Your task to perform on an android device: Go to Amazon Image 0: 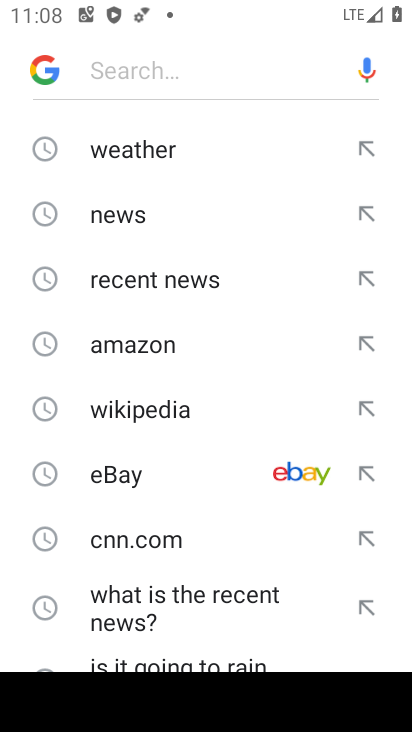
Step 0: press back button
Your task to perform on an android device: Go to Amazon Image 1: 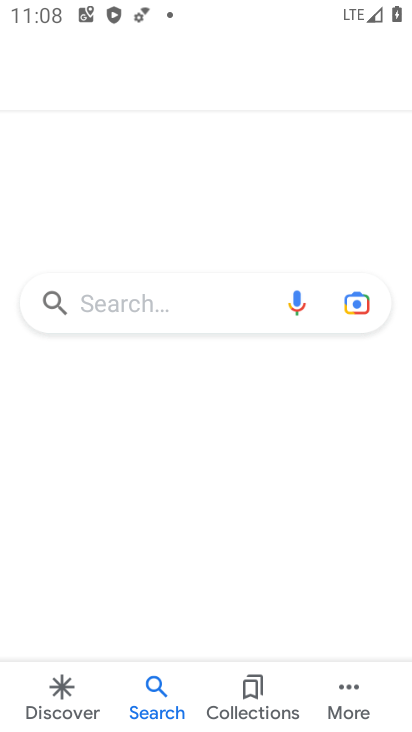
Step 1: press home button
Your task to perform on an android device: Go to Amazon Image 2: 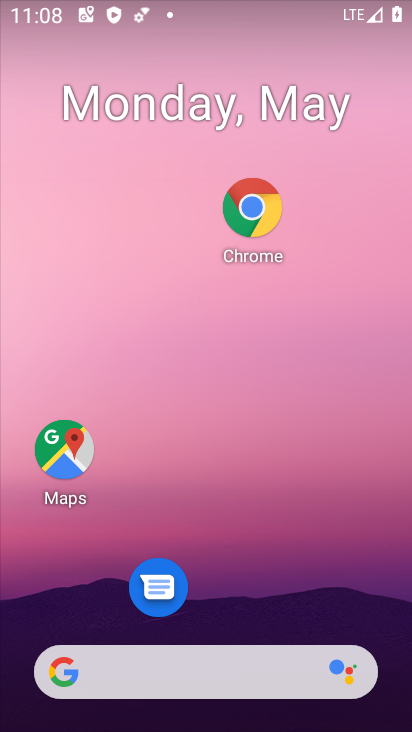
Step 2: drag from (324, 674) to (154, 84)
Your task to perform on an android device: Go to Amazon Image 3: 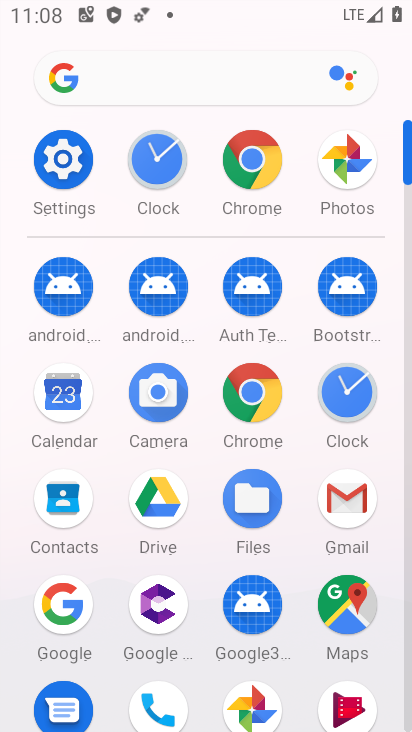
Step 3: click (244, 167)
Your task to perform on an android device: Go to Amazon Image 4: 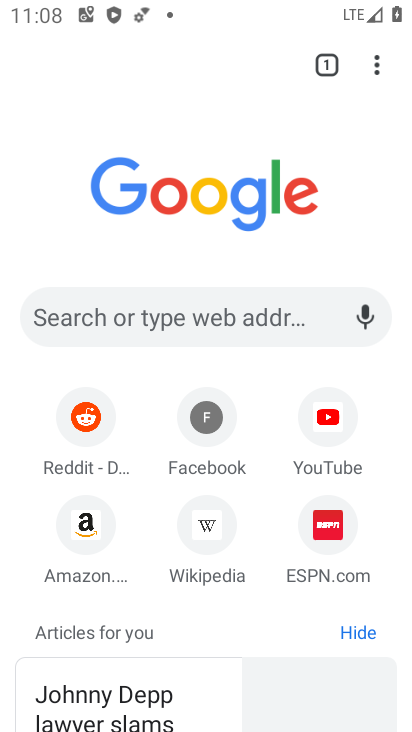
Step 4: click (72, 536)
Your task to perform on an android device: Go to Amazon Image 5: 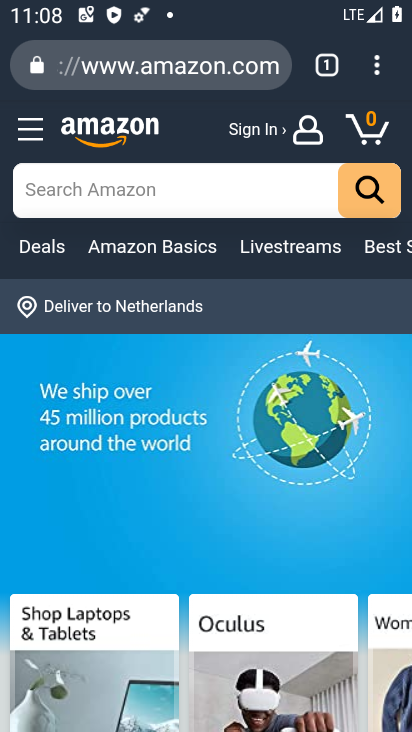
Step 5: task complete